Your task to perform on an android device: turn off picture-in-picture Image 0: 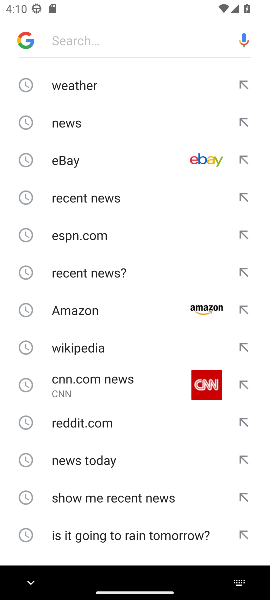
Step 0: press home button
Your task to perform on an android device: turn off picture-in-picture Image 1: 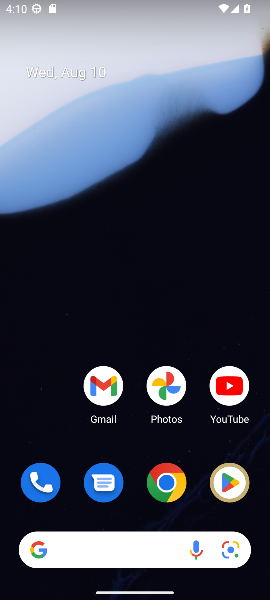
Step 1: drag from (58, 418) to (73, 81)
Your task to perform on an android device: turn off picture-in-picture Image 2: 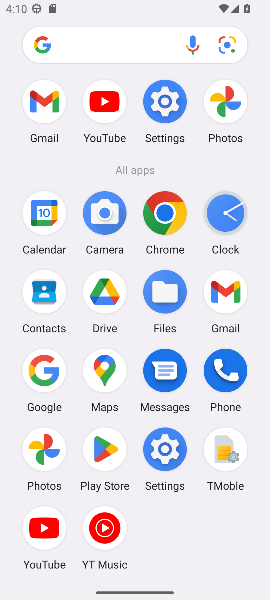
Step 2: click (163, 212)
Your task to perform on an android device: turn off picture-in-picture Image 3: 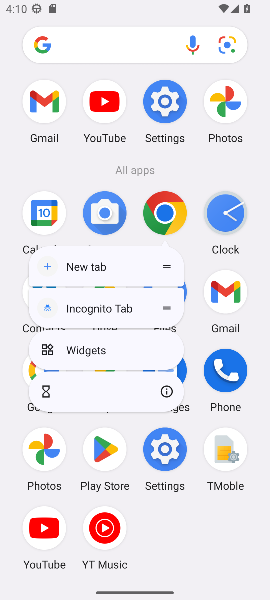
Step 3: click (165, 390)
Your task to perform on an android device: turn off picture-in-picture Image 4: 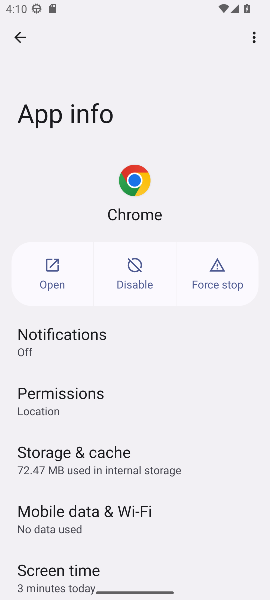
Step 4: drag from (164, 410) to (176, 81)
Your task to perform on an android device: turn off picture-in-picture Image 5: 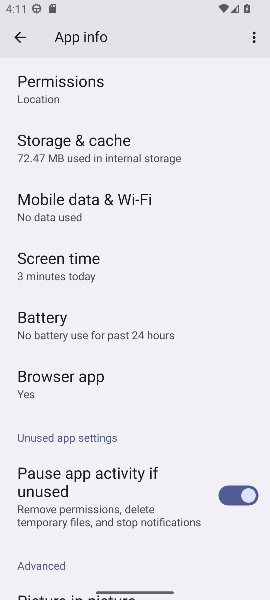
Step 5: drag from (172, 140) to (134, 458)
Your task to perform on an android device: turn off picture-in-picture Image 6: 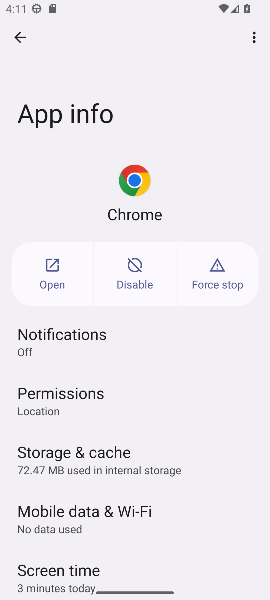
Step 6: drag from (137, 549) to (185, 180)
Your task to perform on an android device: turn off picture-in-picture Image 7: 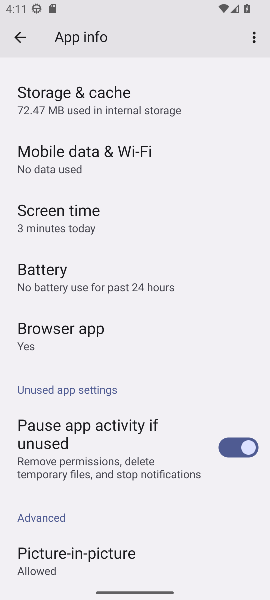
Step 7: drag from (155, 344) to (159, 132)
Your task to perform on an android device: turn off picture-in-picture Image 8: 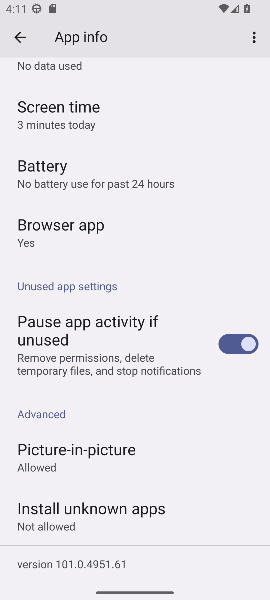
Step 8: click (111, 452)
Your task to perform on an android device: turn off picture-in-picture Image 9: 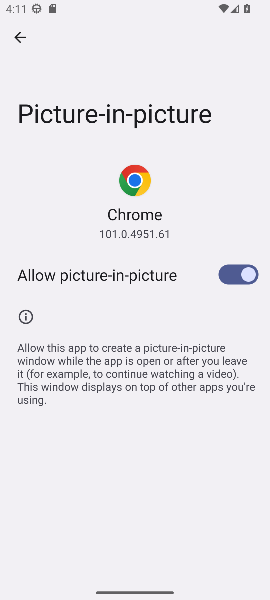
Step 9: click (233, 274)
Your task to perform on an android device: turn off picture-in-picture Image 10: 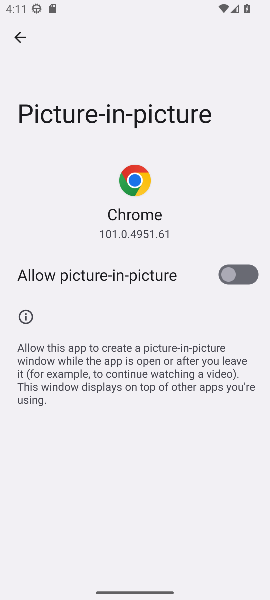
Step 10: task complete